Your task to perform on an android device: change notifications settings Image 0: 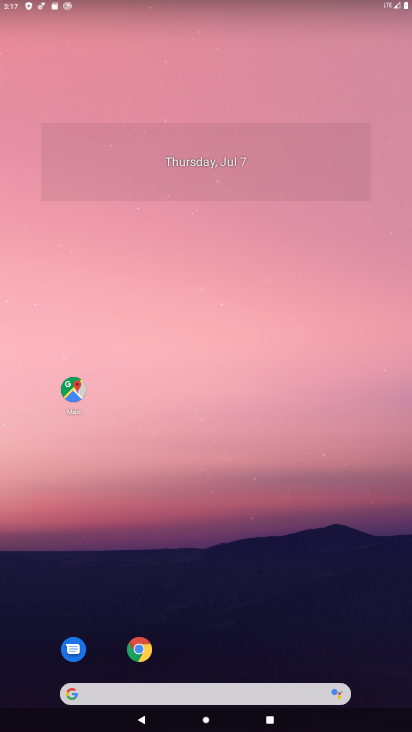
Step 0: drag from (232, 640) to (344, 174)
Your task to perform on an android device: change notifications settings Image 1: 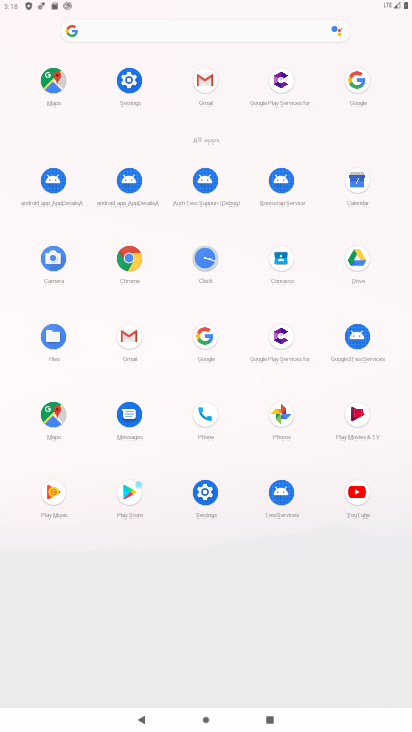
Step 1: click (143, 82)
Your task to perform on an android device: change notifications settings Image 2: 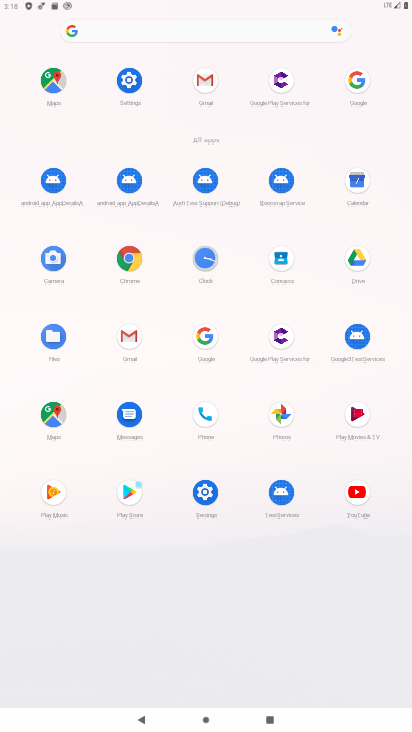
Step 2: click (127, 87)
Your task to perform on an android device: change notifications settings Image 3: 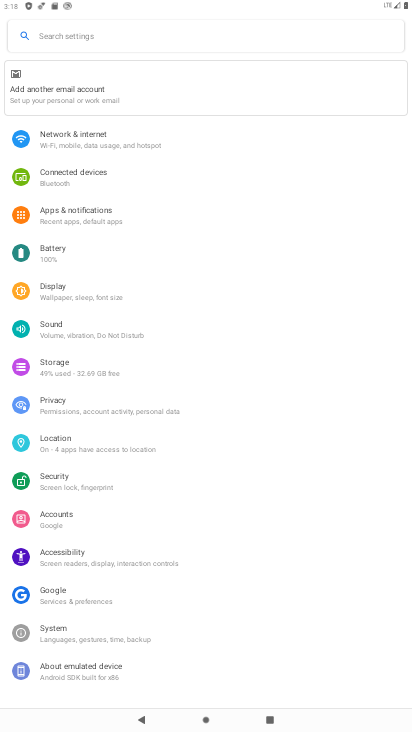
Step 3: click (89, 213)
Your task to perform on an android device: change notifications settings Image 4: 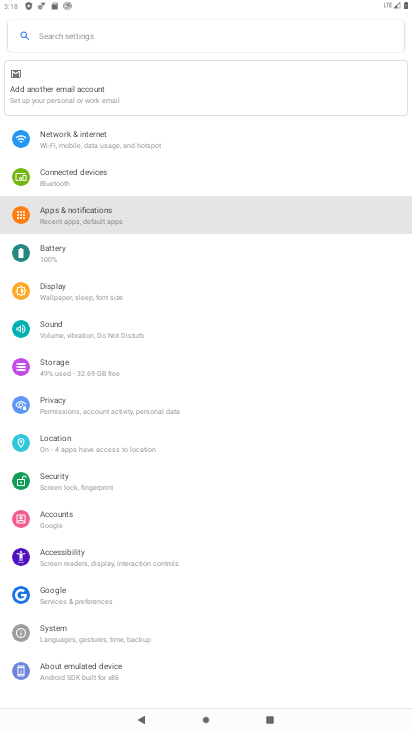
Step 4: click (89, 213)
Your task to perform on an android device: change notifications settings Image 5: 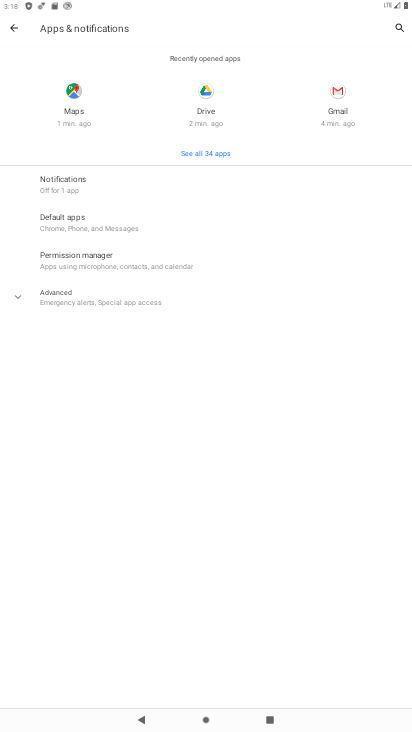
Step 5: click (115, 190)
Your task to perform on an android device: change notifications settings Image 6: 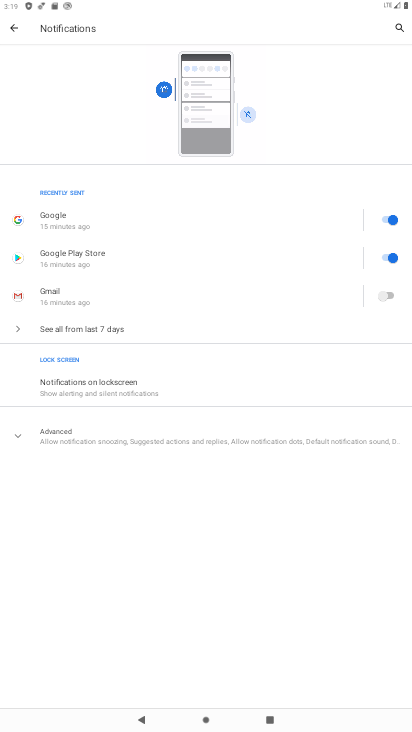
Step 6: click (382, 225)
Your task to perform on an android device: change notifications settings Image 7: 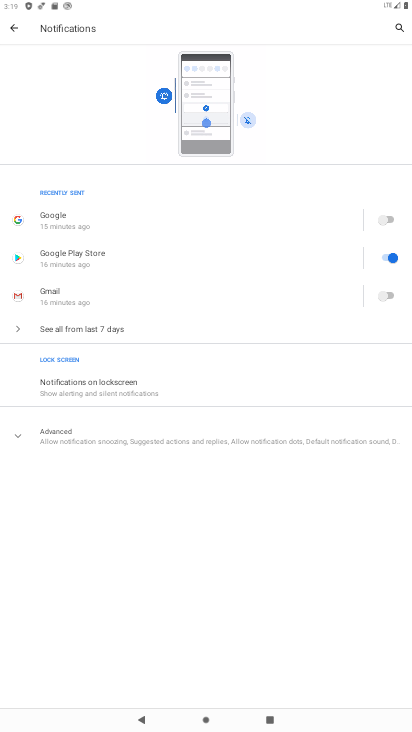
Step 7: task complete